Your task to perform on an android device: check google app version Image 0: 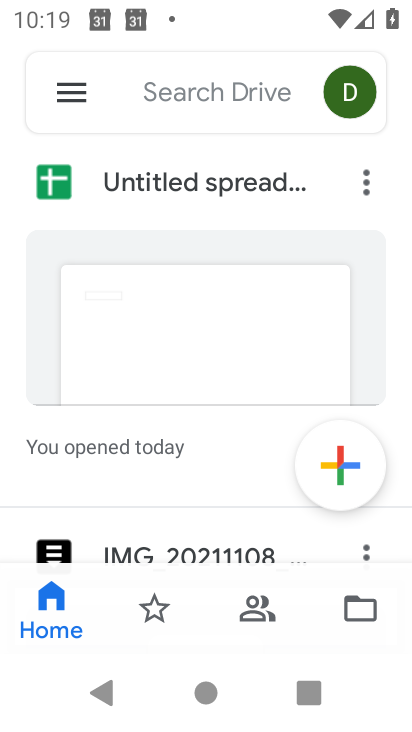
Step 0: press home button
Your task to perform on an android device: check google app version Image 1: 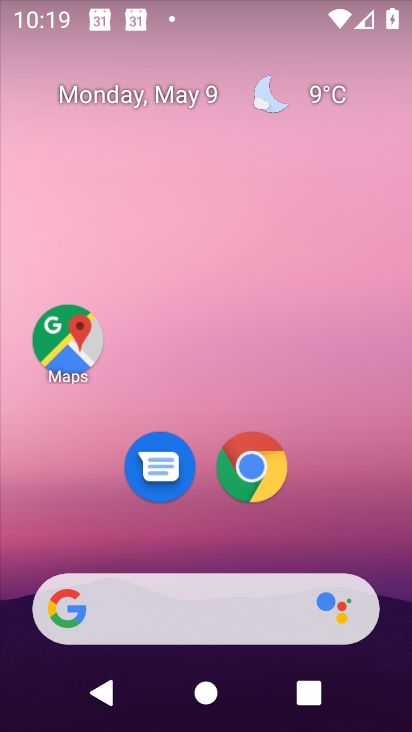
Step 1: drag from (372, 562) to (255, 4)
Your task to perform on an android device: check google app version Image 2: 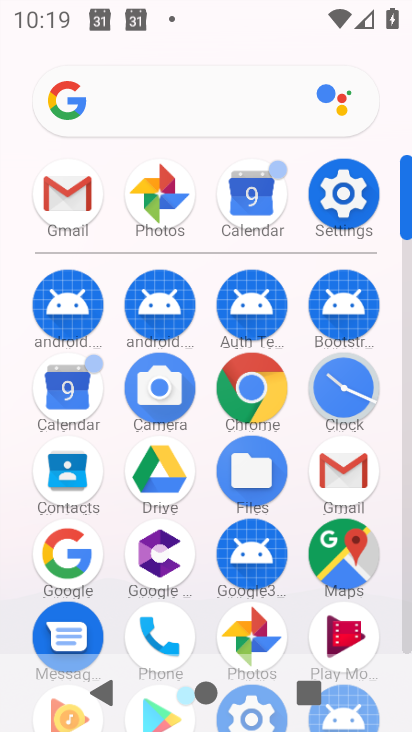
Step 2: click (68, 550)
Your task to perform on an android device: check google app version Image 3: 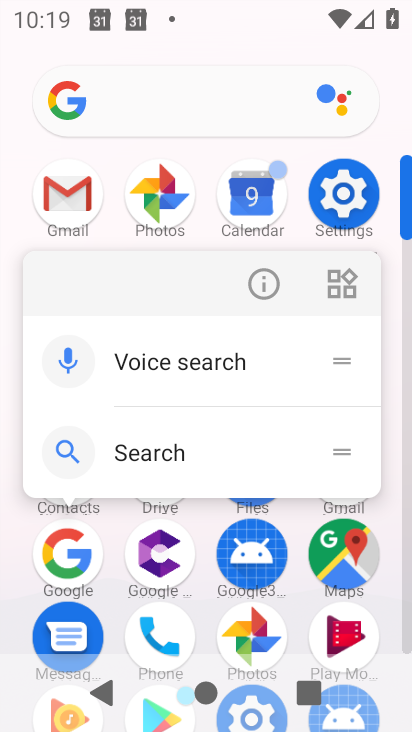
Step 3: click (257, 283)
Your task to perform on an android device: check google app version Image 4: 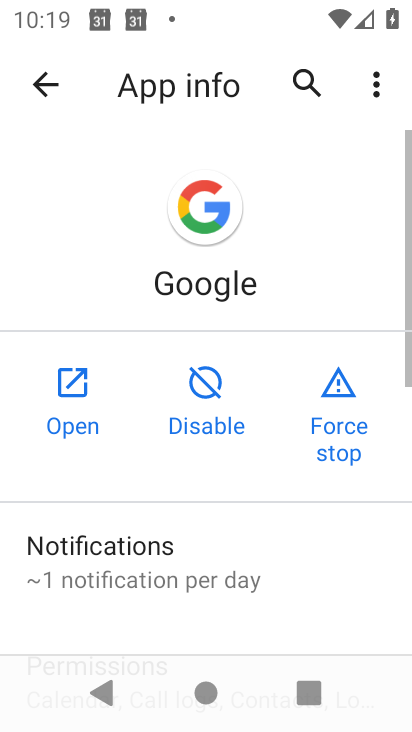
Step 4: drag from (296, 536) to (300, 4)
Your task to perform on an android device: check google app version Image 5: 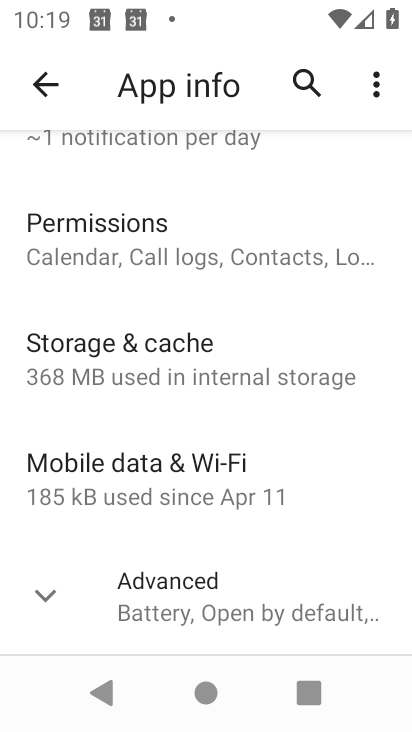
Step 5: drag from (245, 553) to (246, 103)
Your task to perform on an android device: check google app version Image 6: 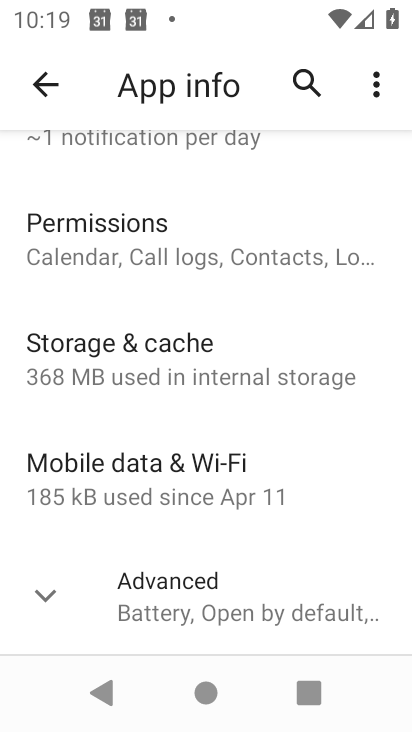
Step 6: click (55, 605)
Your task to perform on an android device: check google app version Image 7: 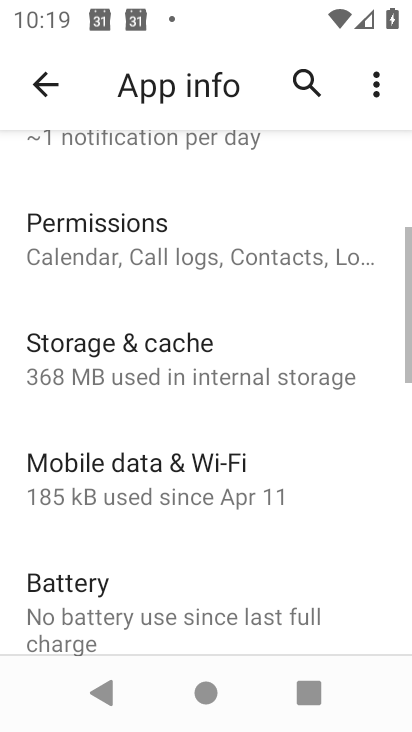
Step 7: task complete